Your task to perform on an android device: Open display settings Image 0: 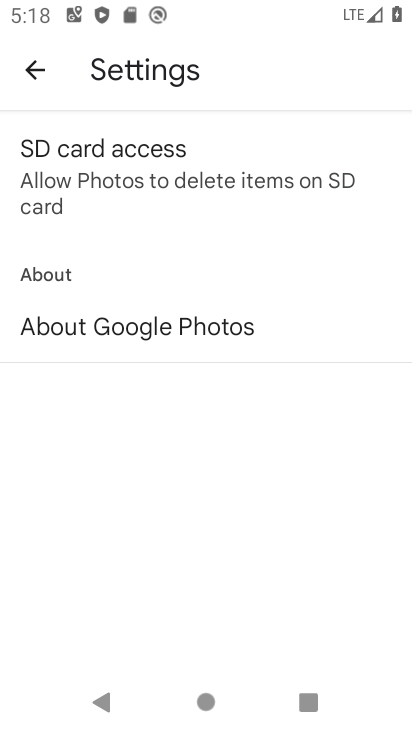
Step 0: press home button
Your task to perform on an android device: Open display settings Image 1: 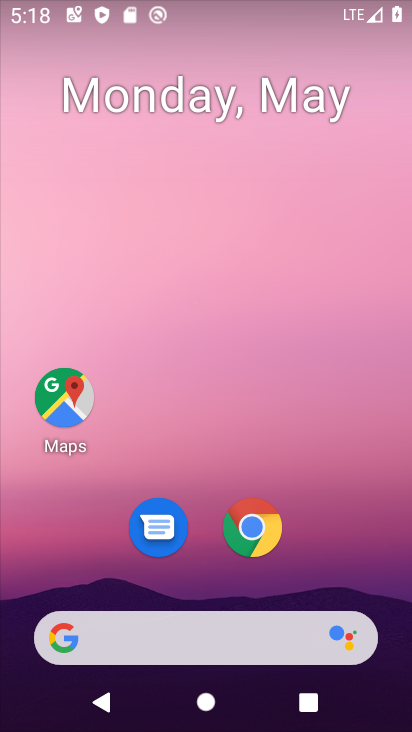
Step 1: click (63, 398)
Your task to perform on an android device: Open display settings Image 2: 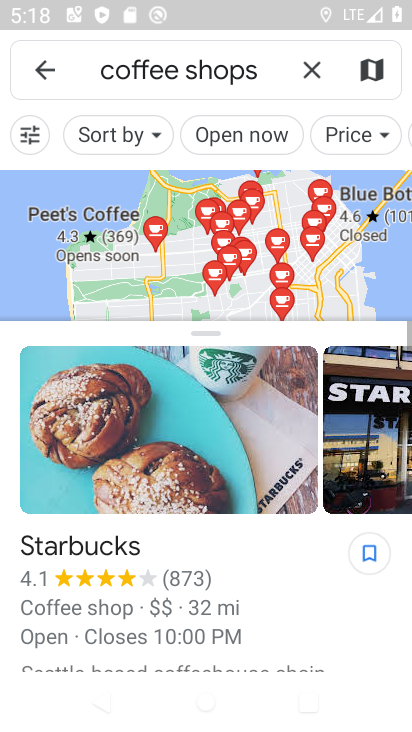
Step 2: press home button
Your task to perform on an android device: Open display settings Image 3: 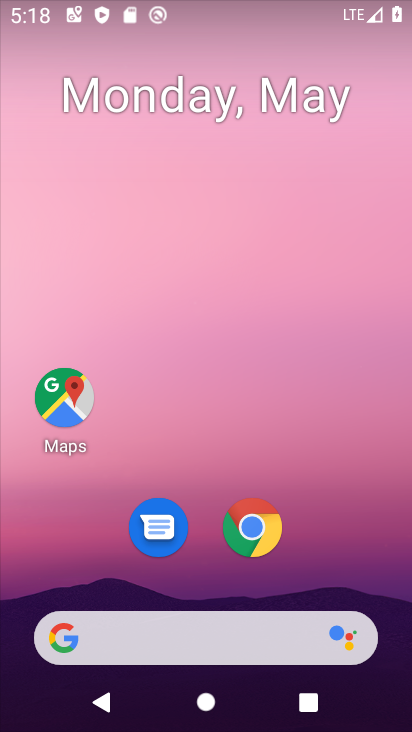
Step 3: drag from (385, 566) to (348, 133)
Your task to perform on an android device: Open display settings Image 4: 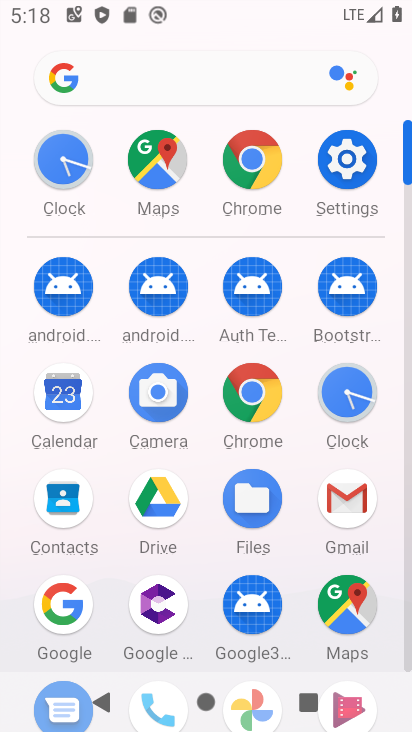
Step 4: click (349, 156)
Your task to perform on an android device: Open display settings Image 5: 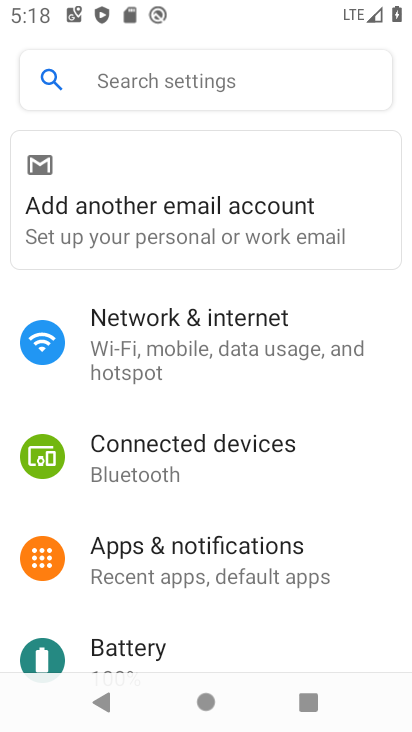
Step 5: drag from (197, 639) to (191, 288)
Your task to perform on an android device: Open display settings Image 6: 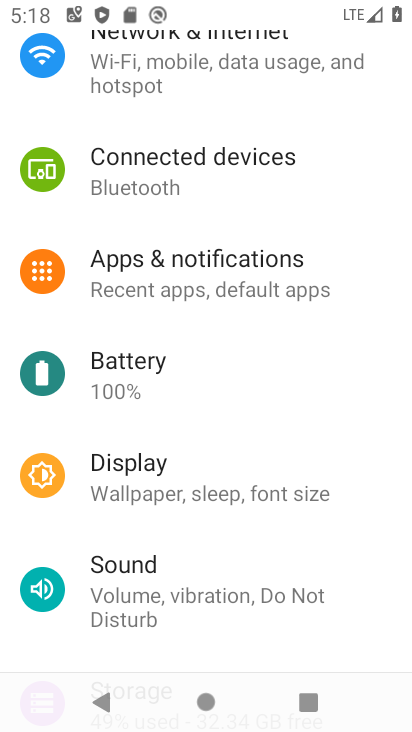
Step 6: click (127, 466)
Your task to perform on an android device: Open display settings Image 7: 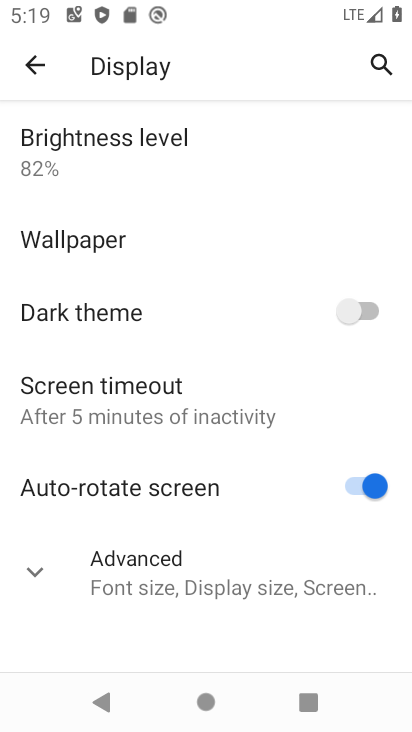
Step 7: task complete